Your task to perform on an android device: Open Reddit.com Image 0: 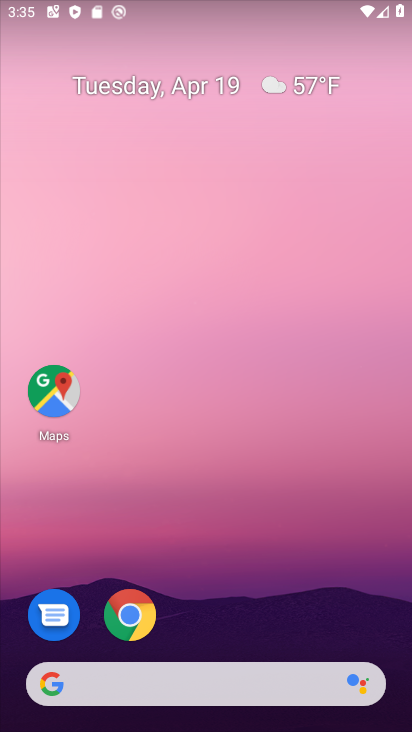
Step 0: click (151, 675)
Your task to perform on an android device: Open Reddit.com Image 1: 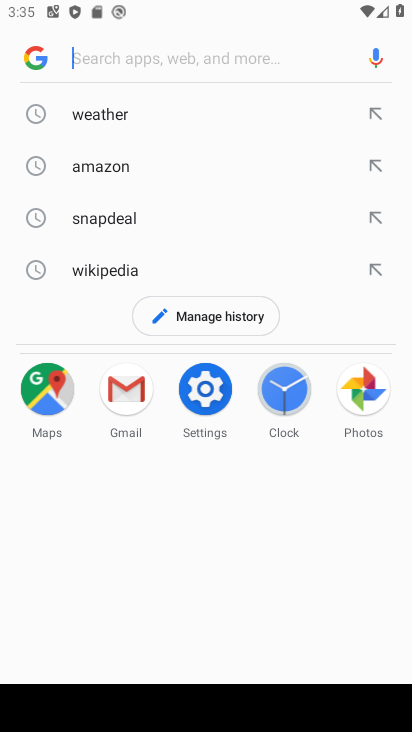
Step 1: type "Reddit.com"
Your task to perform on an android device: Open Reddit.com Image 2: 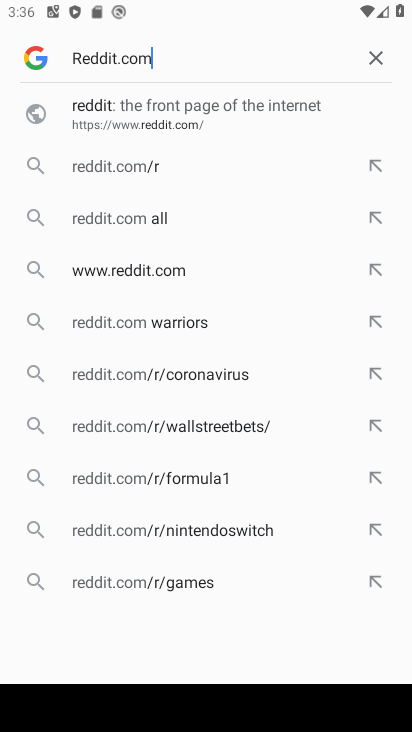
Step 2: click (166, 267)
Your task to perform on an android device: Open Reddit.com Image 3: 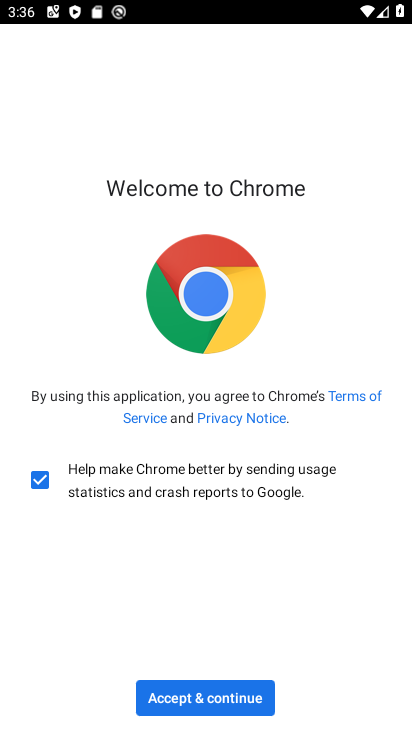
Step 3: click (210, 692)
Your task to perform on an android device: Open Reddit.com Image 4: 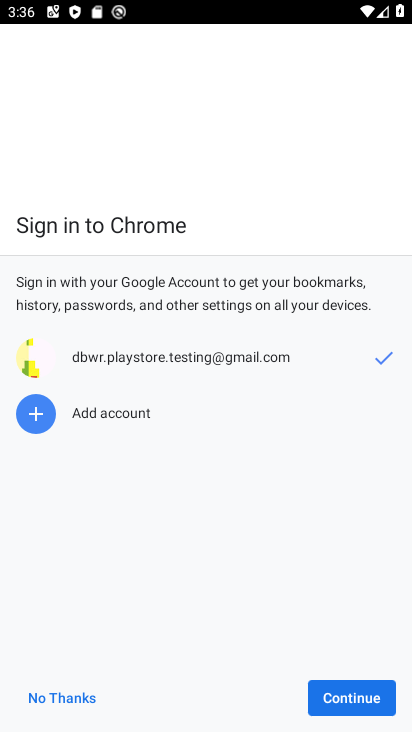
Step 4: click (332, 686)
Your task to perform on an android device: Open Reddit.com Image 5: 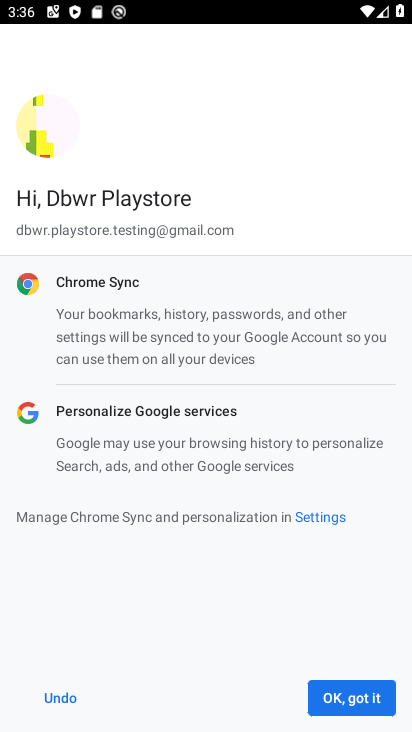
Step 5: click (345, 715)
Your task to perform on an android device: Open Reddit.com Image 6: 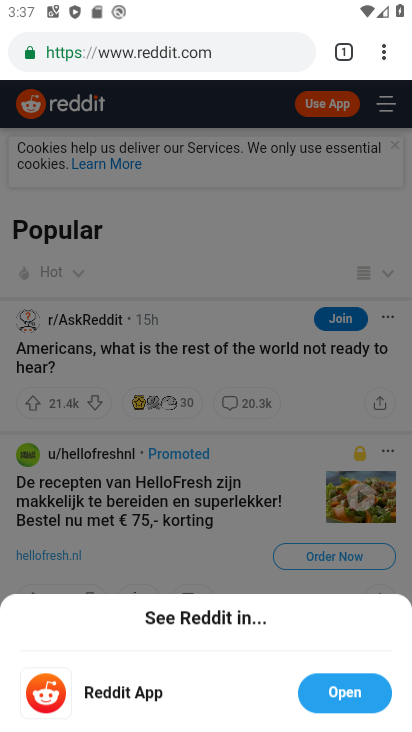
Step 6: task complete